Your task to perform on an android device: What's on my calendar tomorrow? Image 0: 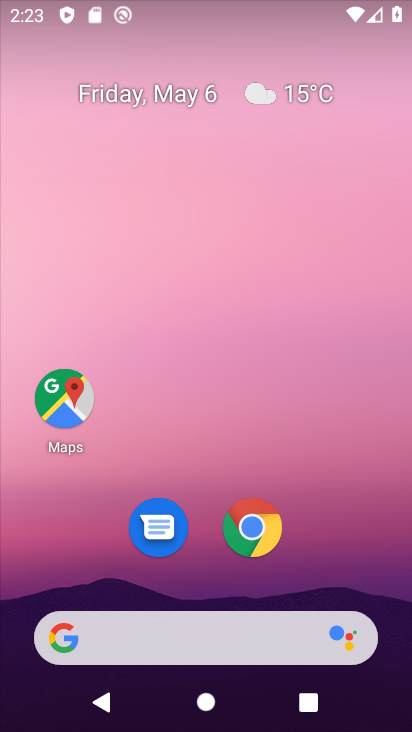
Step 0: click (193, 149)
Your task to perform on an android device: What's on my calendar tomorrow? Image 1: 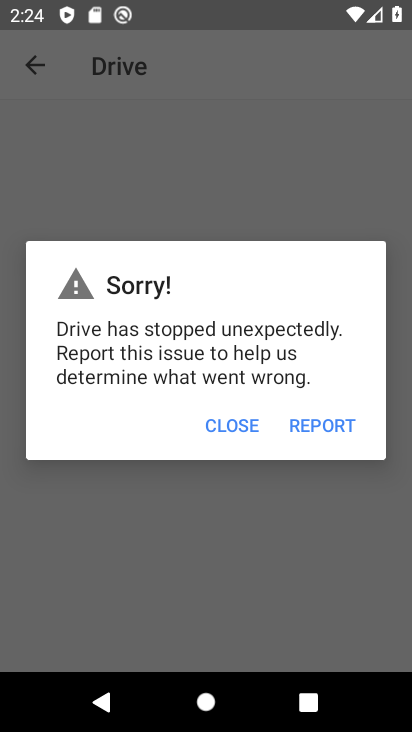
Step 1: press home button
Your task to perform on an android device: What's on my calendar tomorrow? Image 2: 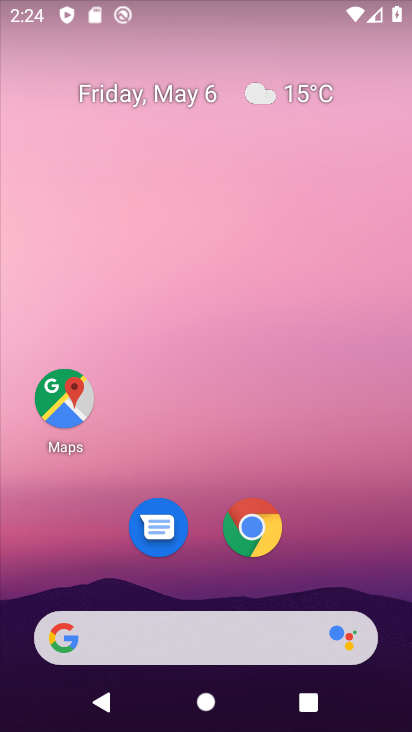
Step 2: drag from (198, 584) to (177, 204)
Your task to perform on an android device: What's on my calendar tomorrow? Image 3: 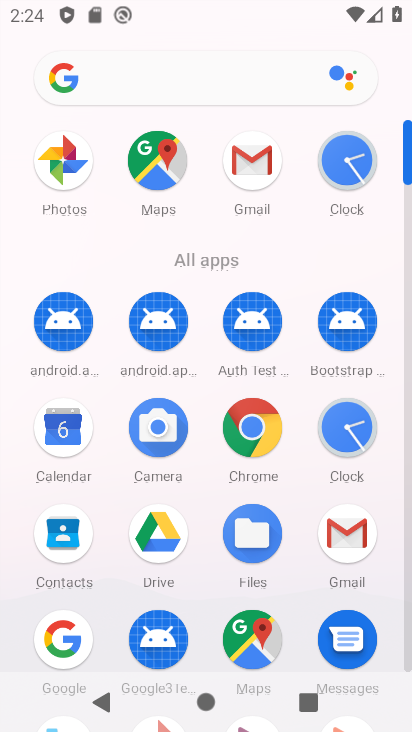
Step 3: click (52, 434)
Your task to perform on an android device: What's on my calendar tomorrow? Image 4: 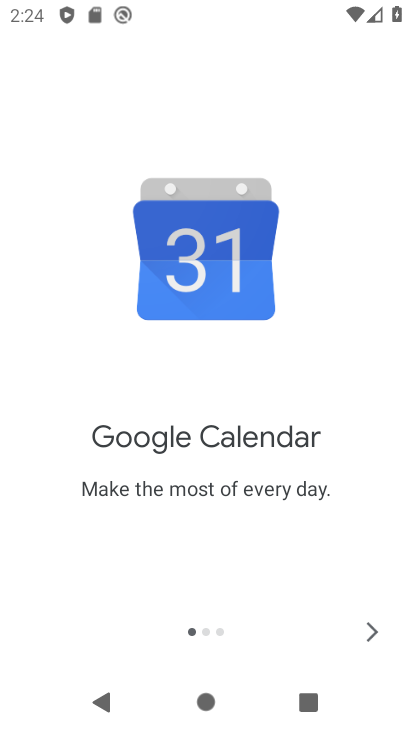
Step 4: click (370, 635)
Your task to perform on an android device: What's on my calendar tomorrow? Image 5: 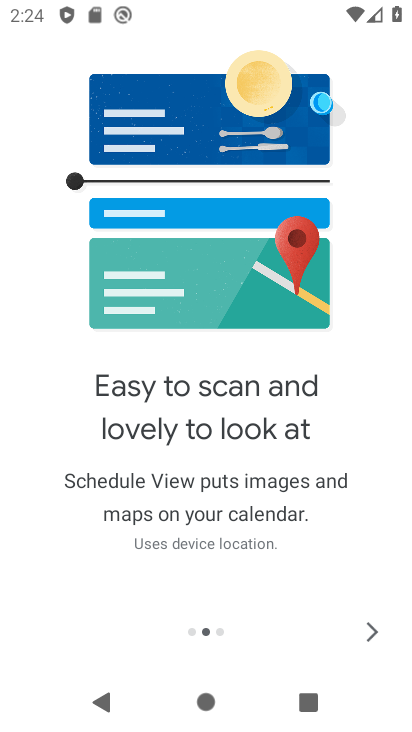
Step 5: click (370, 635)
Your task to perform on an android device: What's on my calendar tomorrow? Image 6: 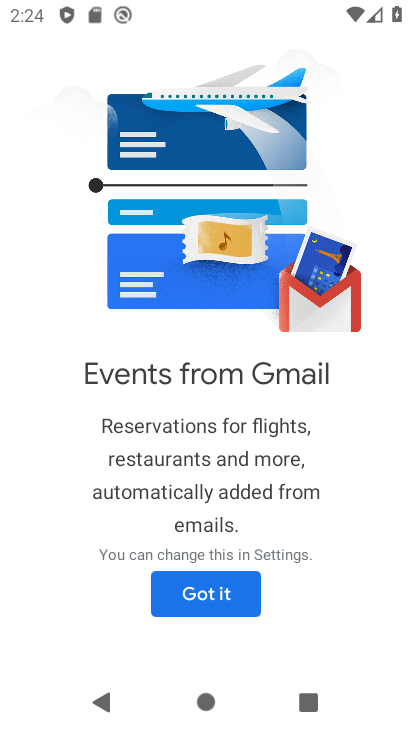
Step 6: click (230, 598)
Your task to perform on an android device: What's on my calendar tomorrow? Image 7: 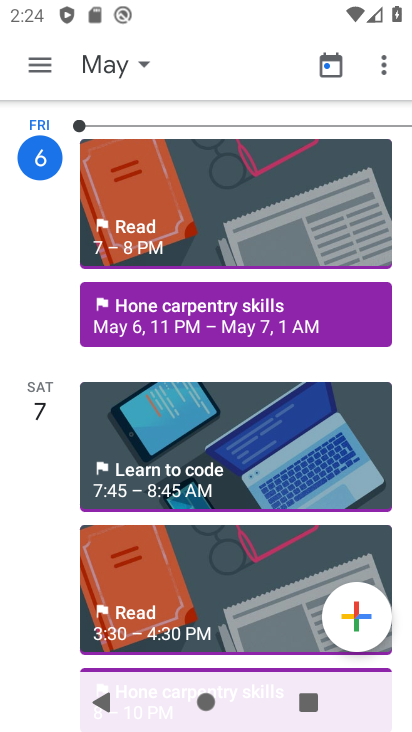
Step 7: click (129, 71)
Your task to perform on an android device: What's on my calendar tomorrow? Image 8: 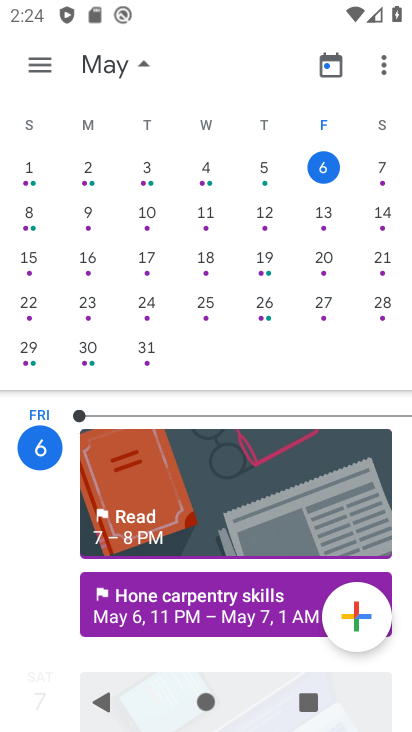
Step 8: click (378, 175)
Your task to perform on an android device: What's on my calendar tomorrow? Image 9: 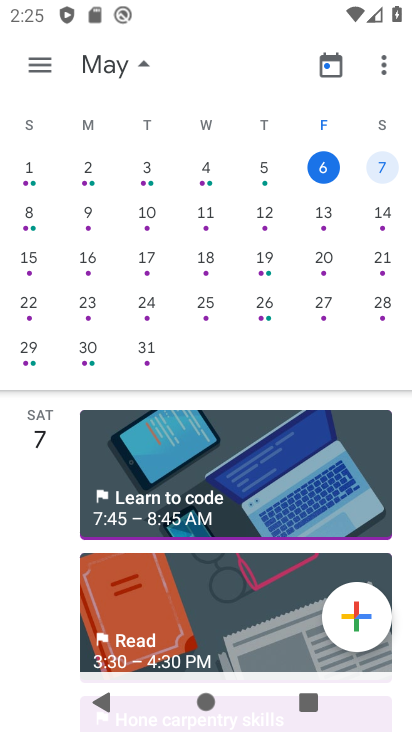
Step 9: click (377, 162)
Your task to perform on an android device: What's on my calendar tomorrow? Image 10: 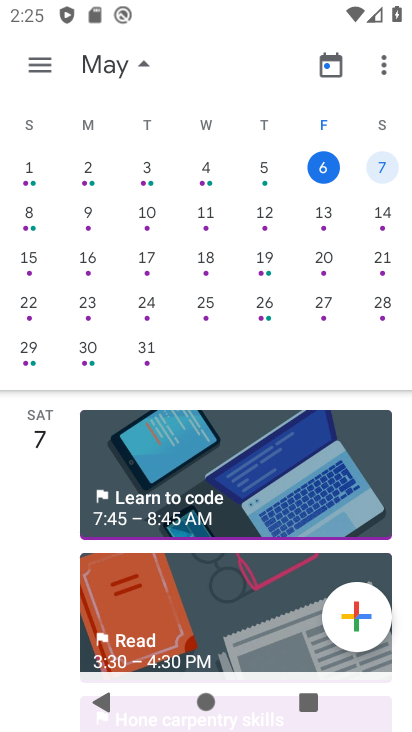
Step 10: task complete